Your task to perform on an android device: Go to settings Image 0: 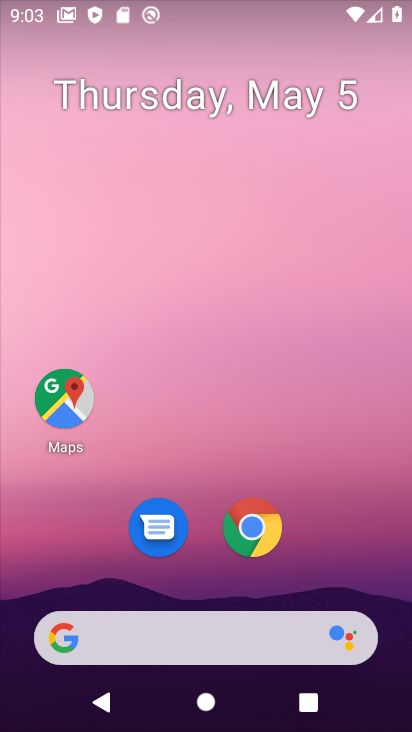
Step 0: drag from (366, 590) to (385, 76)
Your task to perform on an android device: Go to settings Image 1: 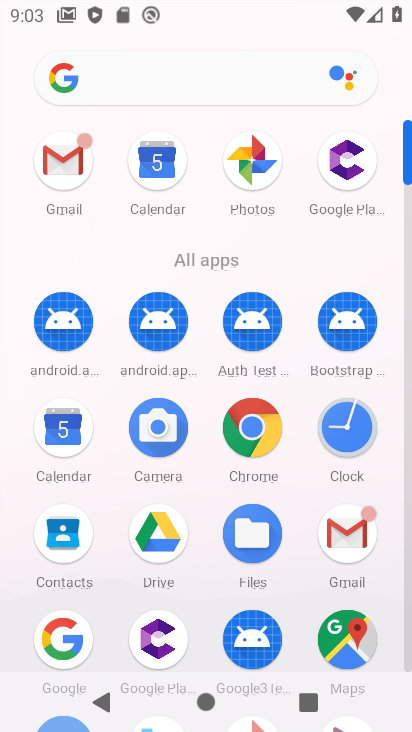
Step 1: click (410, 663)
Your task to perform on an android device: Go to settings Image 2: 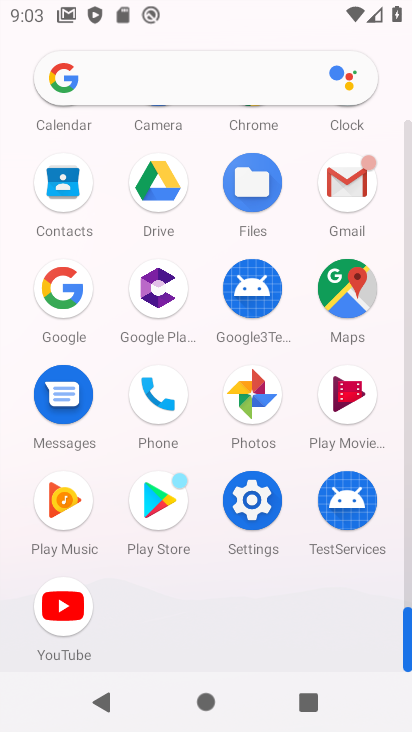
Step 2: click (247, 507)
Your task to perform on an android device: Go to settings Image 3: 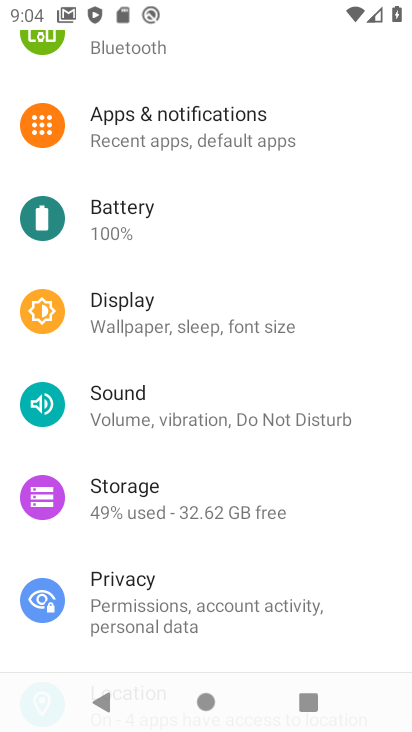
Step 3: task complete